Your task to perform on an android device: check google app version Image 0: 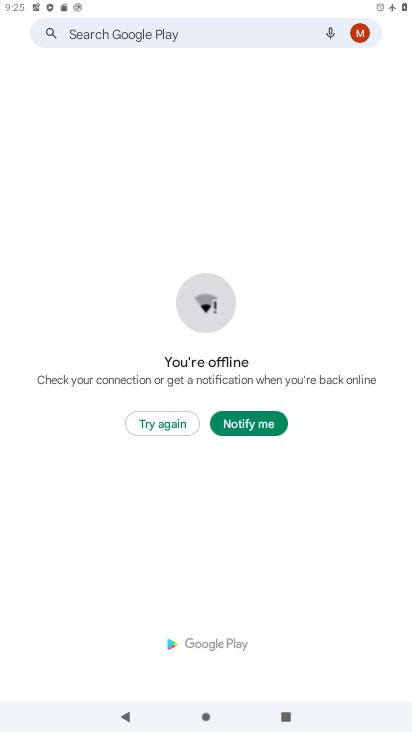
Step 0: press home button
Your task to perform on an android device: check google app version Image 1: 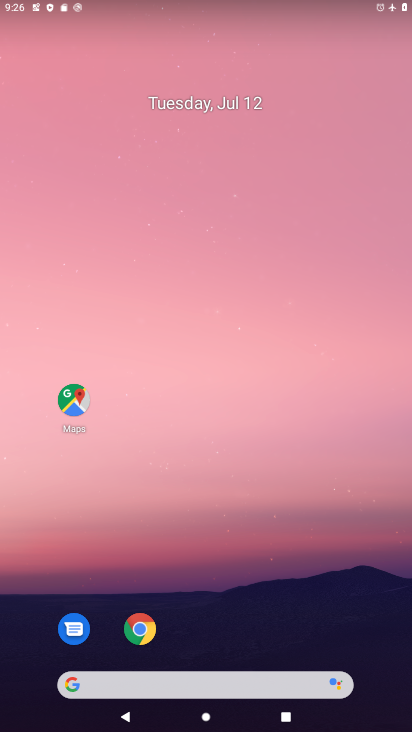
Step 1: drag from (300, 564) to (333, 102)
Your task to perform on an android device: check google app version Image 2: 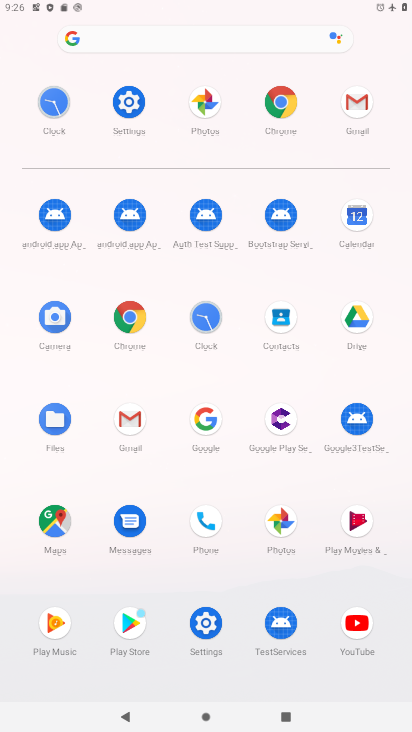
Step 2: click (202, 410)
Your task to perform on an android device: check google app version Image 3: 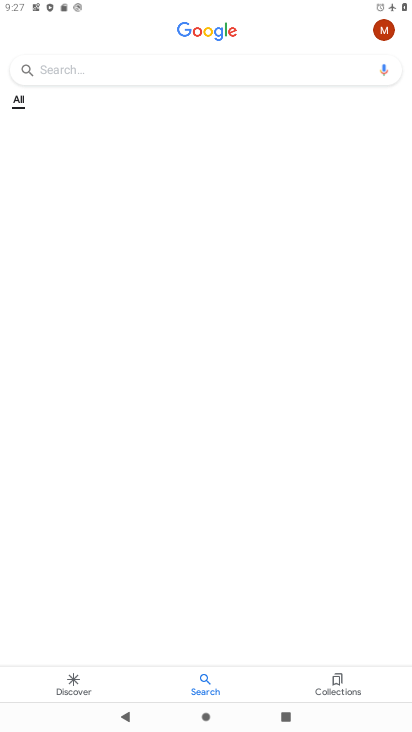
Step 3: click (378, 20)
Your task to perform on an android device: check google app version Image 4: 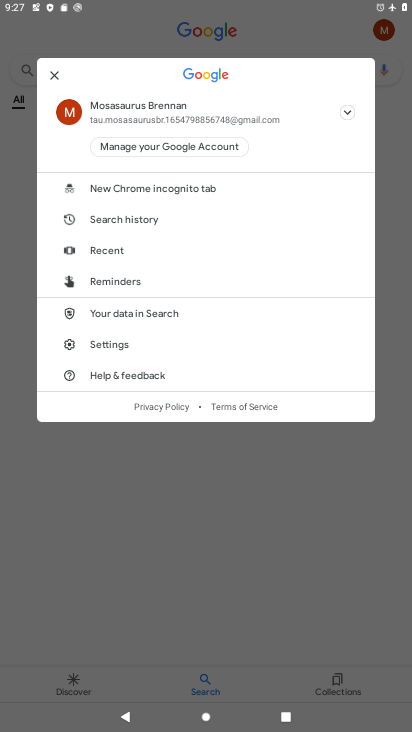
Step 4: click (92, 346)
Your task to perform on an android device: check google app version Image 5: 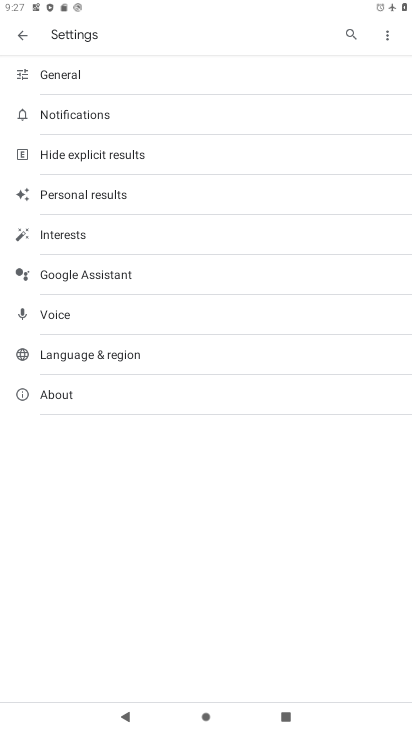
Step 5: click (84, 392)
Your task to perform on an android device: check google app version Image 6: 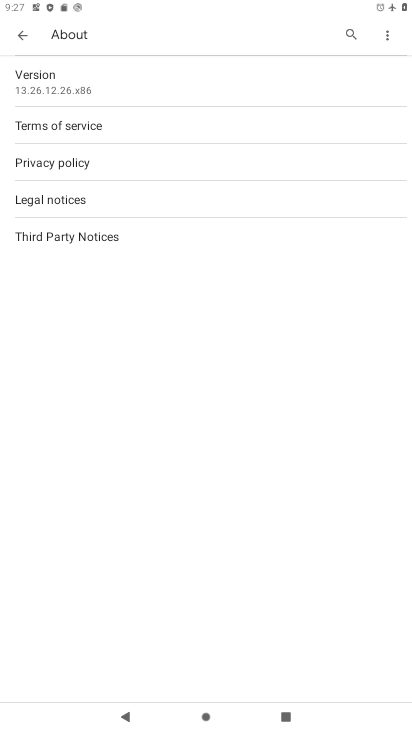
Step 6: click (75, 78)
Your task to perform on an android device: check google app version Image 7: 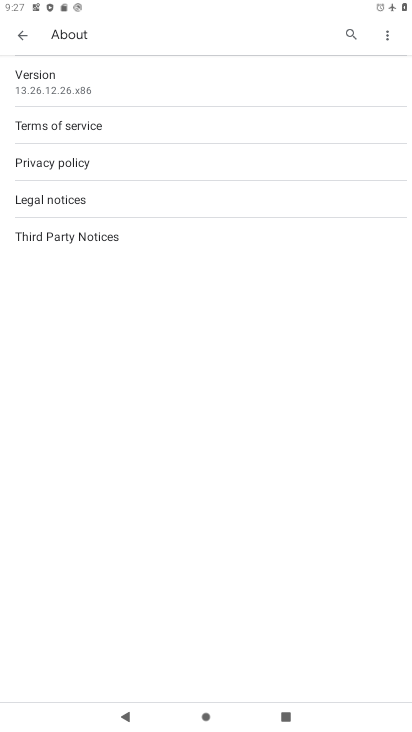
Step 7: task complete